Your task to perform on an android device: open app "Facebook" (install if not already installed) and enter user name: "resultants@gmail.com" and password: "earned" Image 0: 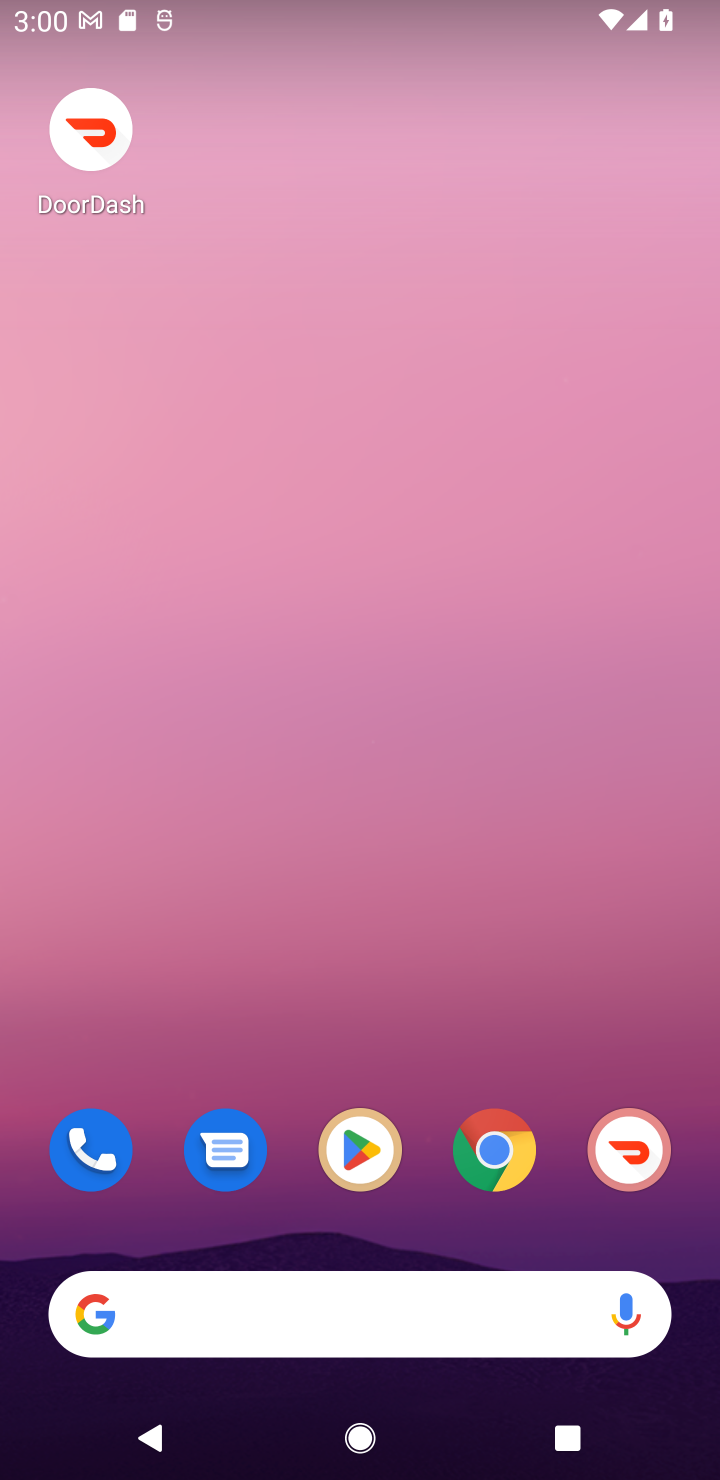
Step 0: drag from (445, 1224) to (410, 334)
Your task to perform on an android device: open app "Facebook" (install if not already installed) and enter user name: "resultants@gmail.com" and password: "earned" Image 1: 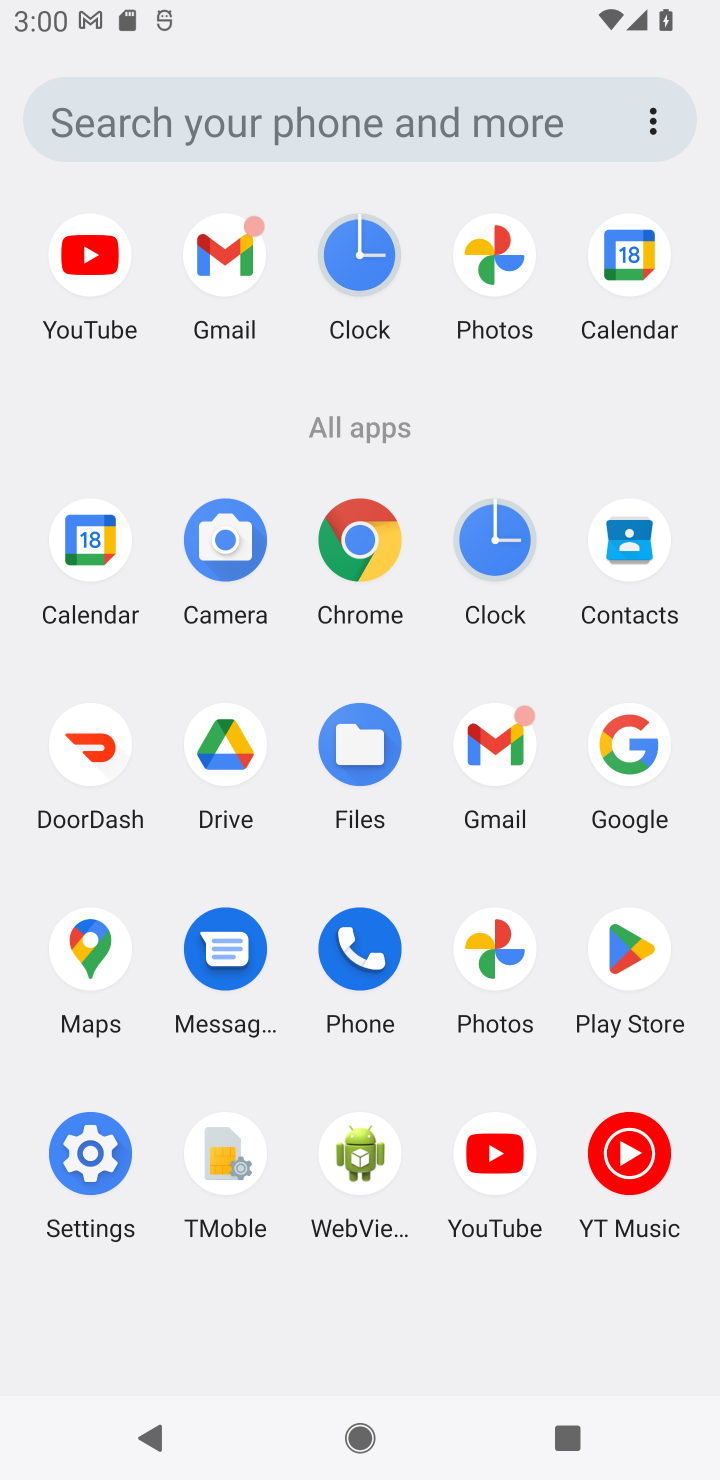
Step 1: click (628, 946)
Your task to perform on an android device: open app "Facebook" (install if not already installed) and enter user name: "resultants@gmail.com" and password: "earned" Image 2: 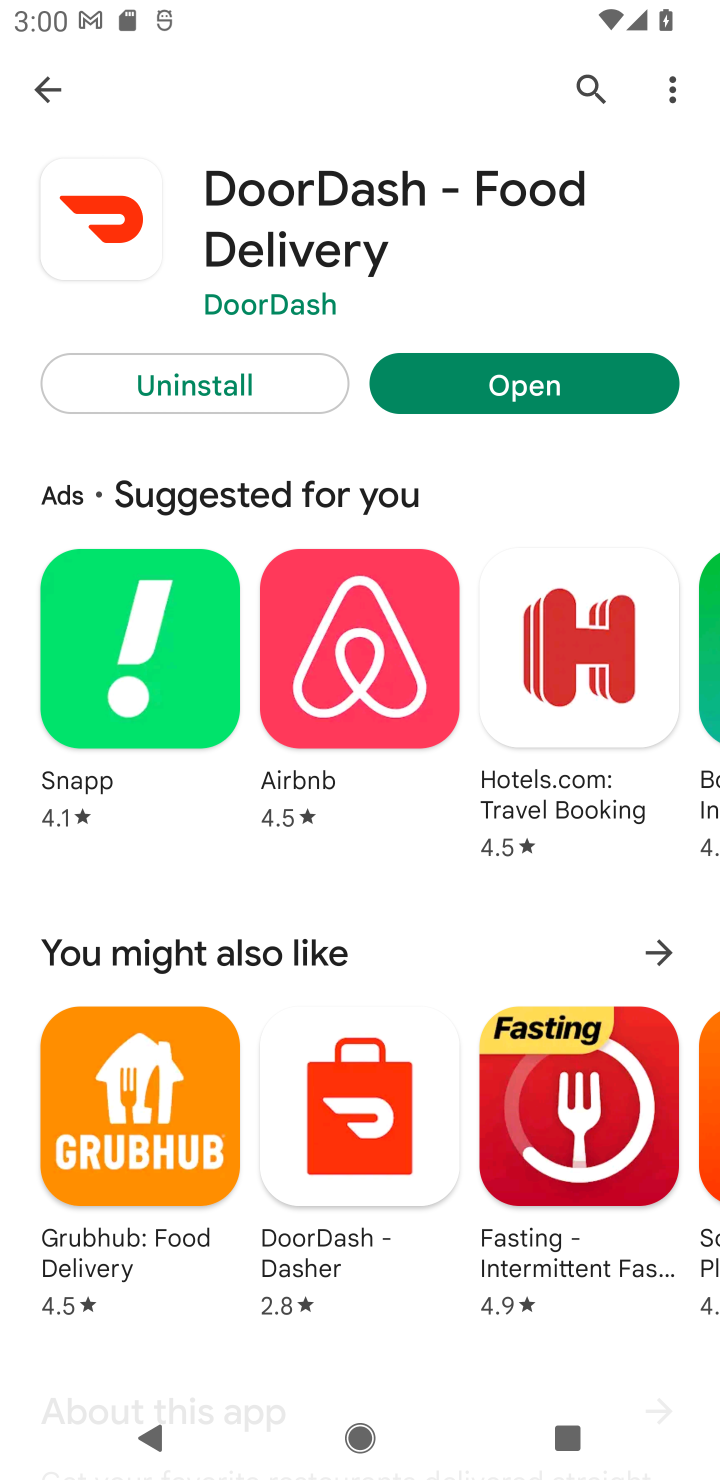
Step 2: click (584, 84)
Your task to perform on an android device: open app "Facebook" (install if not already installed) and enter user name: "resultants@gmail.com" and password: "earned" Image 3: 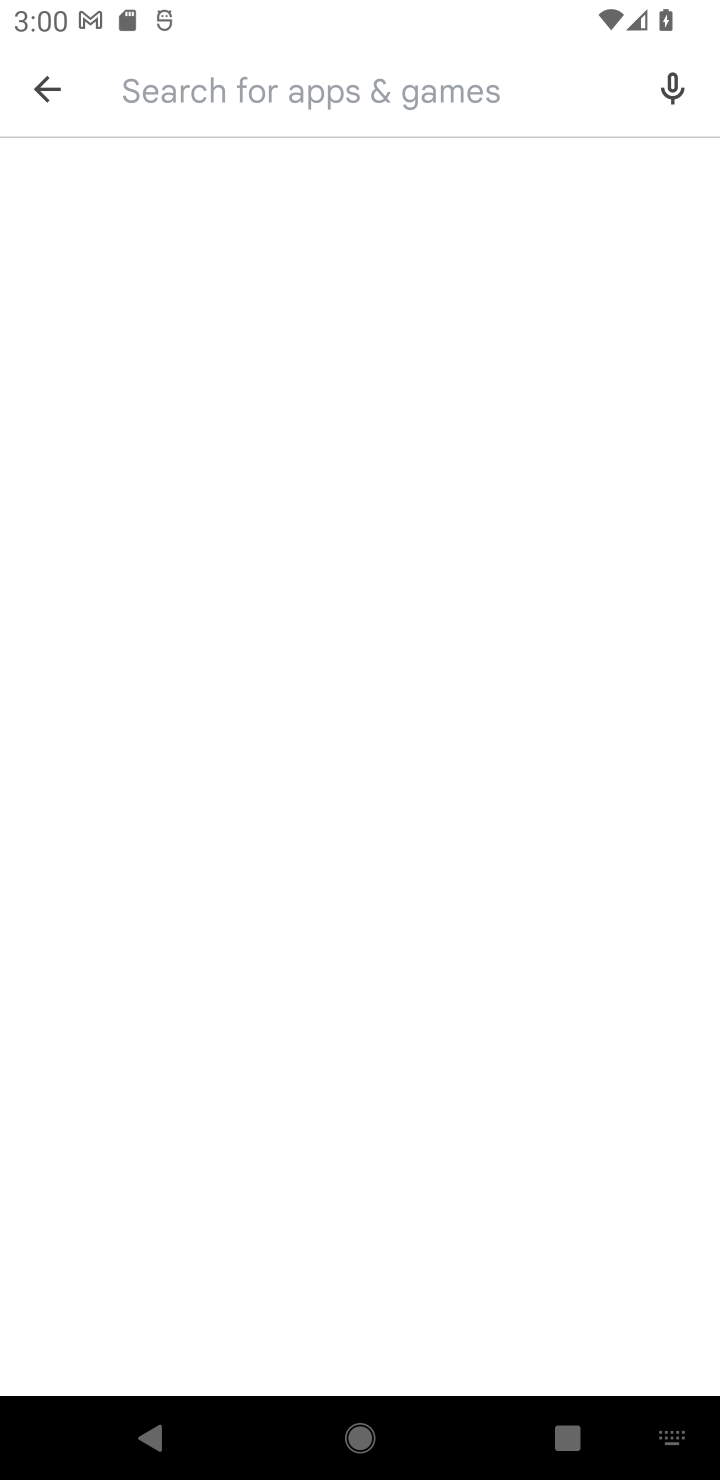
Step 3: type "Facebook"
Your task to perform on an android device: open app "Facebook" (install if not already installed) and enter user name: "resultants@gmail.com" and password: "earned" Image 4: 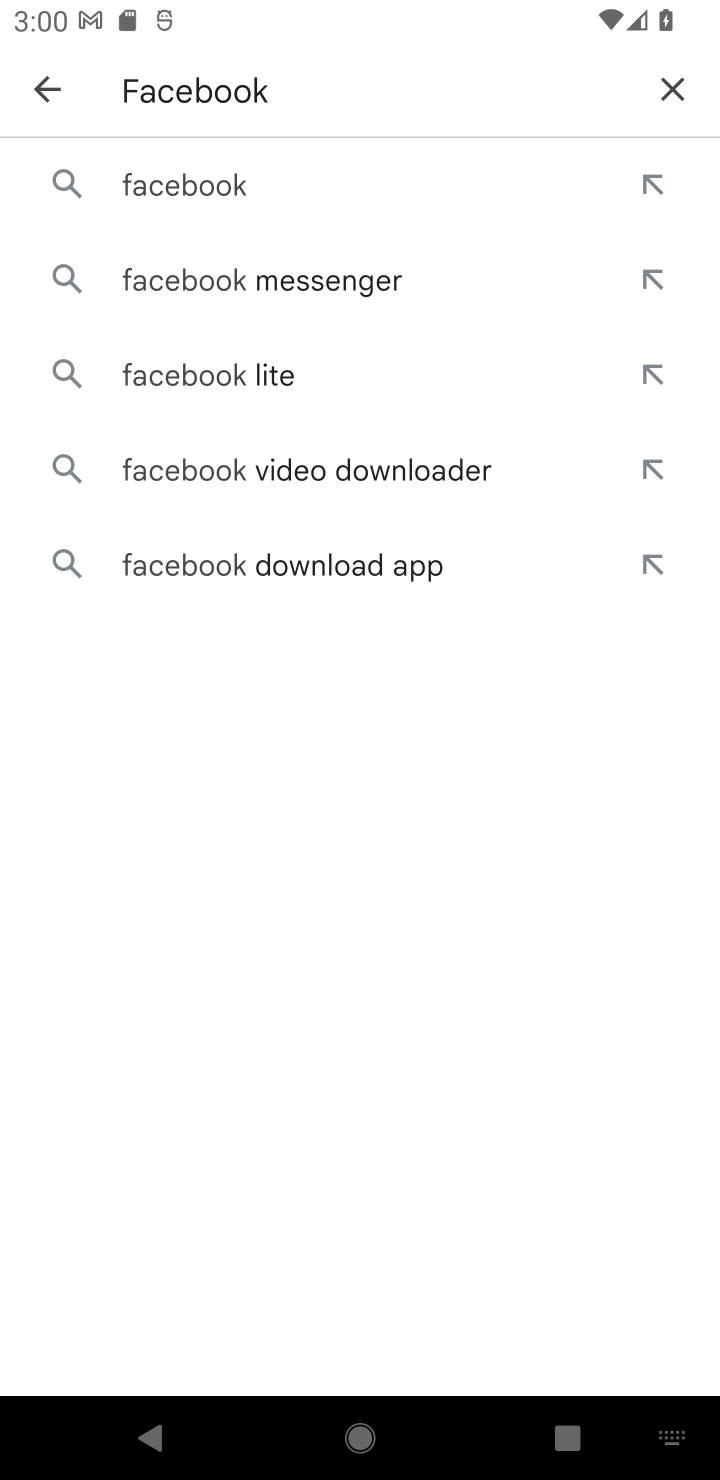
Step 4: click (221, 176)
Your task to perform on an android device: open app "Facebook" (install if not already installed) and enter user name: "resultants@gmail.com" and password: "earned" Image 5: 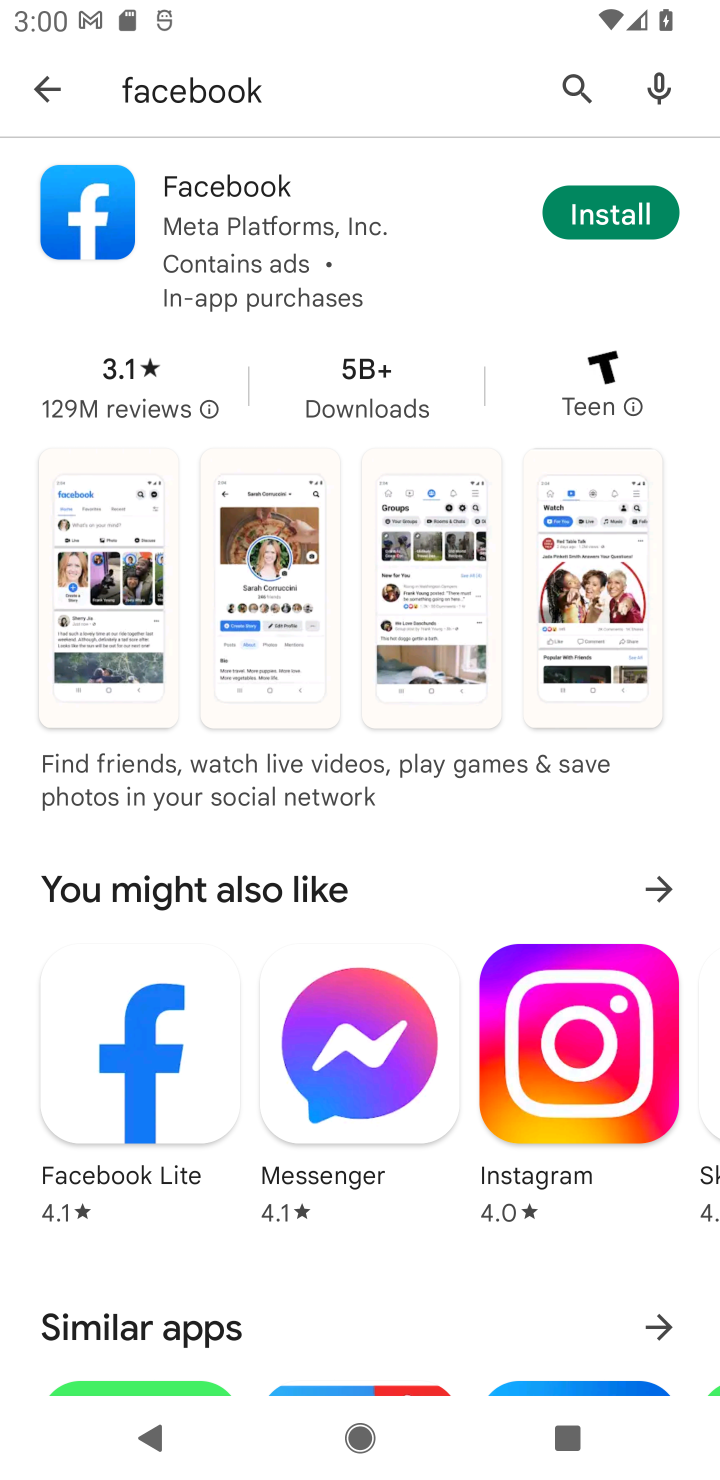
Step 5: click (607, 212)
Your task to perform on an android device: open app "Facebook" (install if not already installed) and enter user name: "resultants@gmail.com" and password: "earned" Image 6: 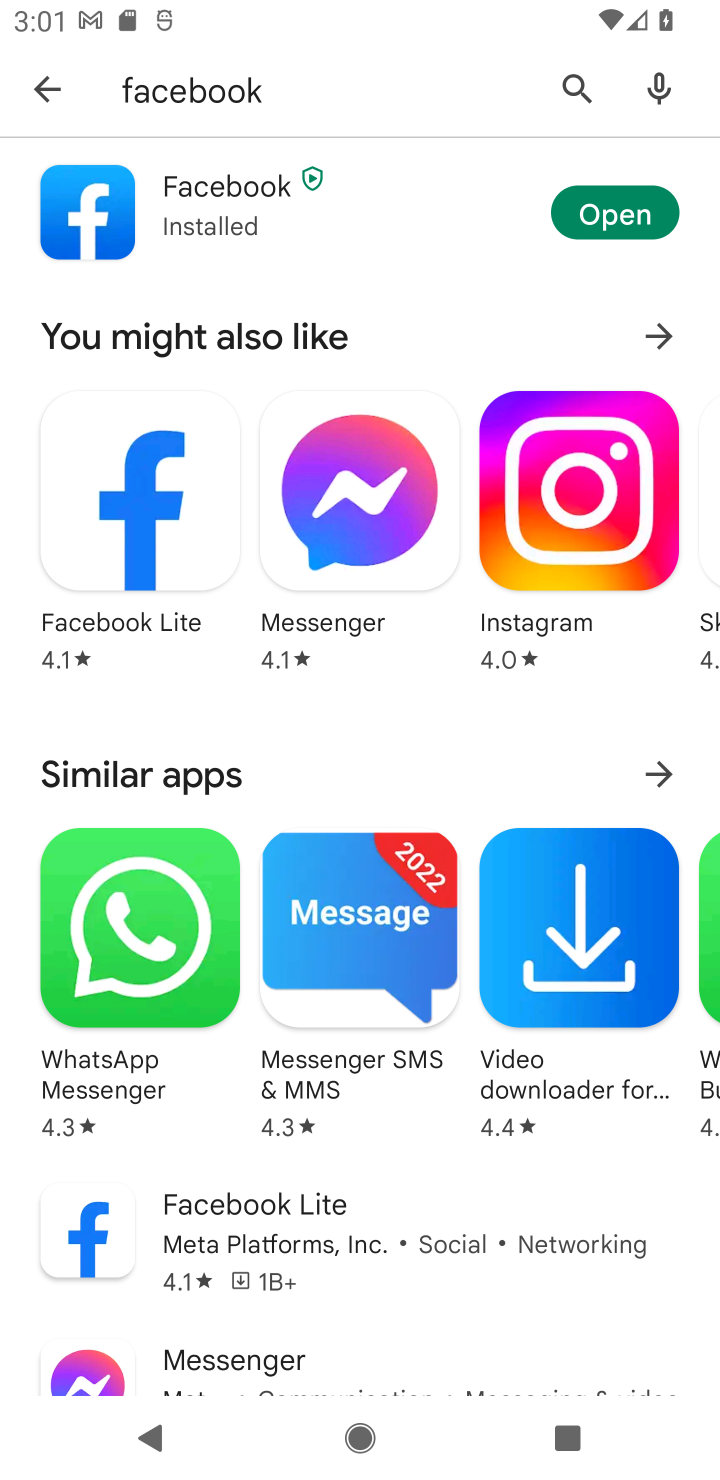
Step 6: click (607, 212)
Your task to perform on an android device: open app "Facebook" (install if not already installed) and enter user name: "resultants@gmail.com" and password: "earned" Image 7: 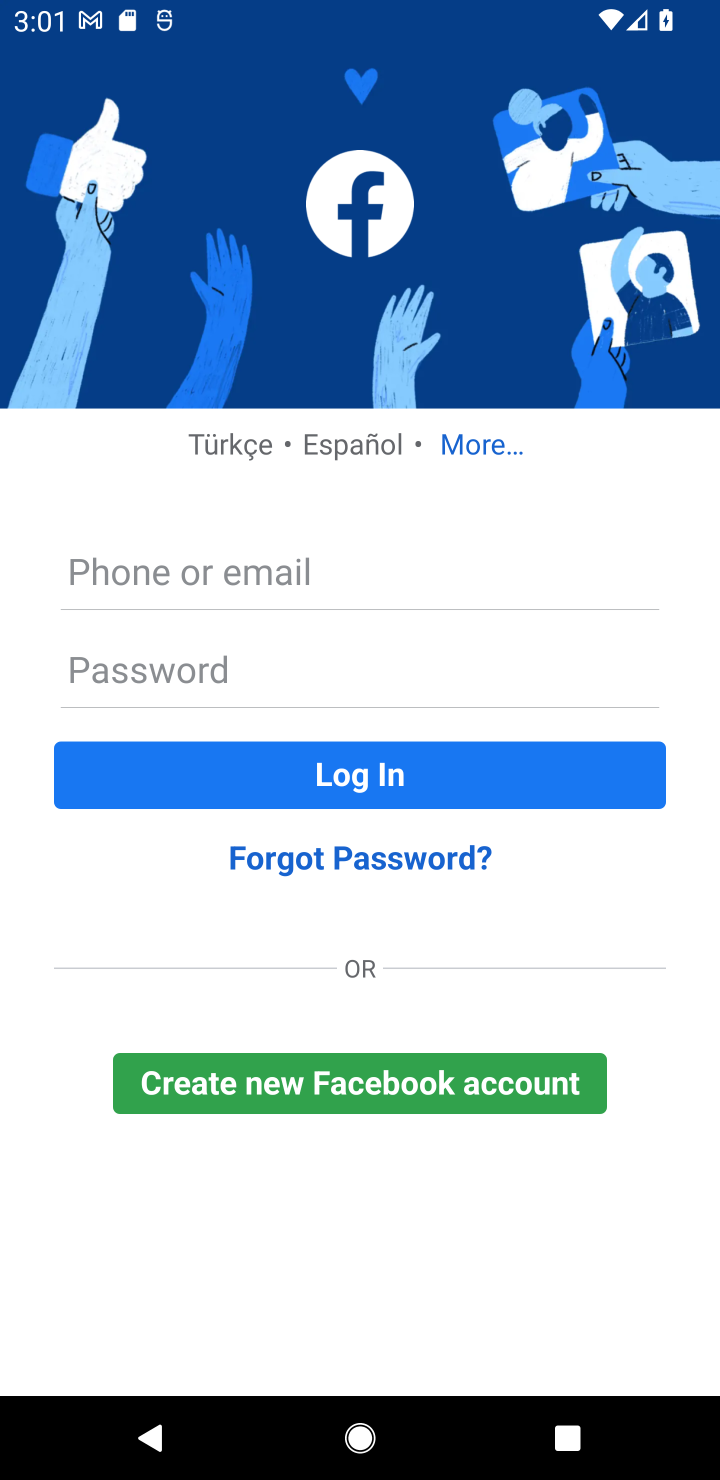
Step 7: click (188, 576)
Your task to perform on an android device: open app "Facebook" (install if not already installed) and enter user name: "resultants@gmail.com" and password: "earned" Image 8: 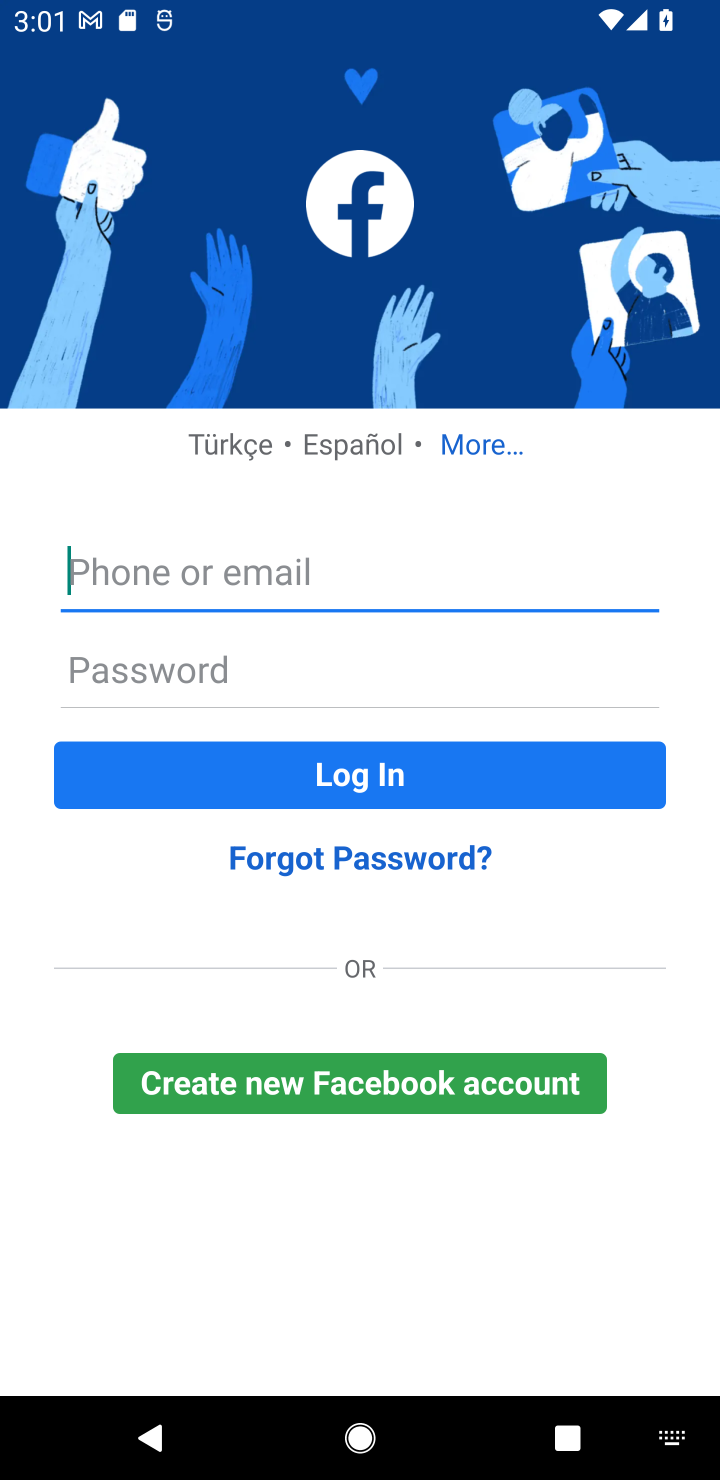
Step 8: type "resultants@gmail.com"
Your task to perform on an android device: open app "Facebook" (install if not already installed) and enter user name: "resultants@gmail.com" and password: "earned" Image 9: 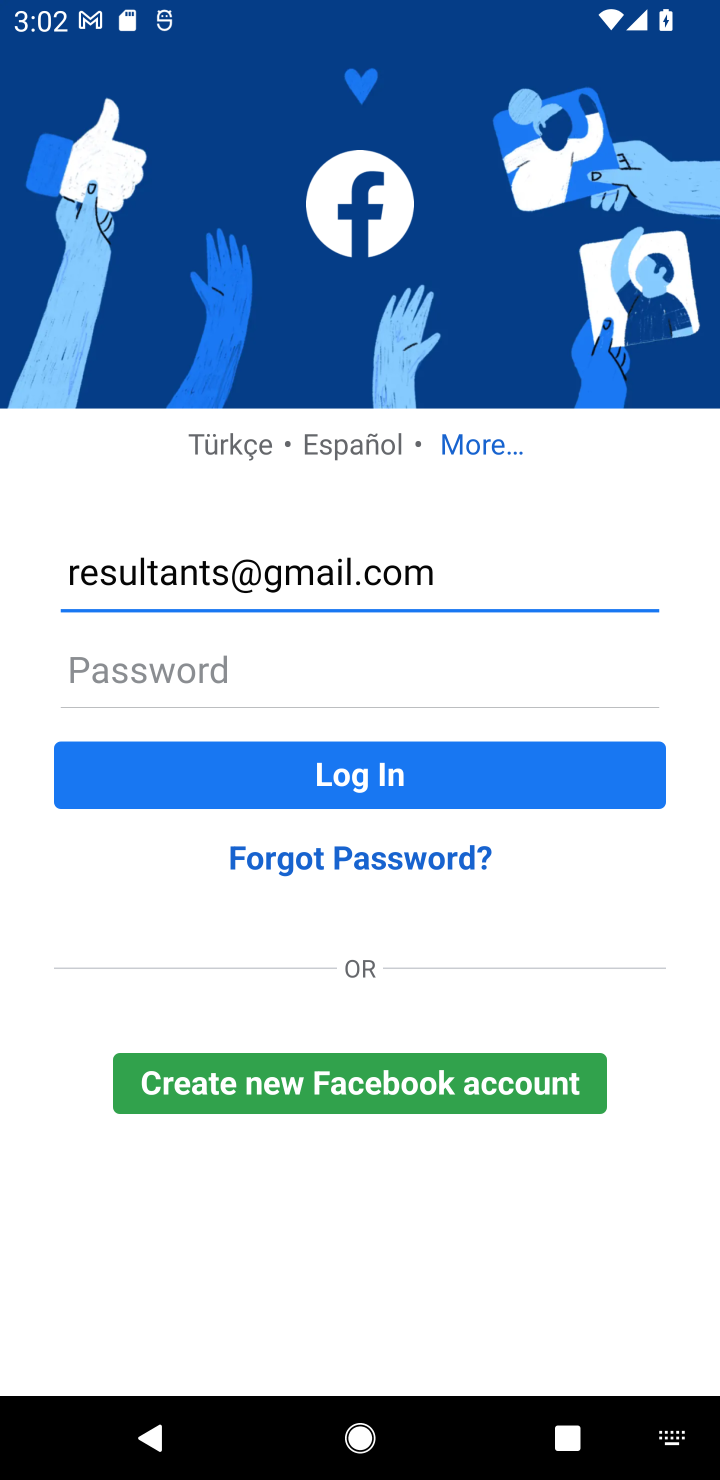
Step 9: click (155, 670)
Your task to perform on an android device: open app "Facebook" (install if not already installed) and enter user name: "resultants@gmail.com" and password: "earned" Image 10: 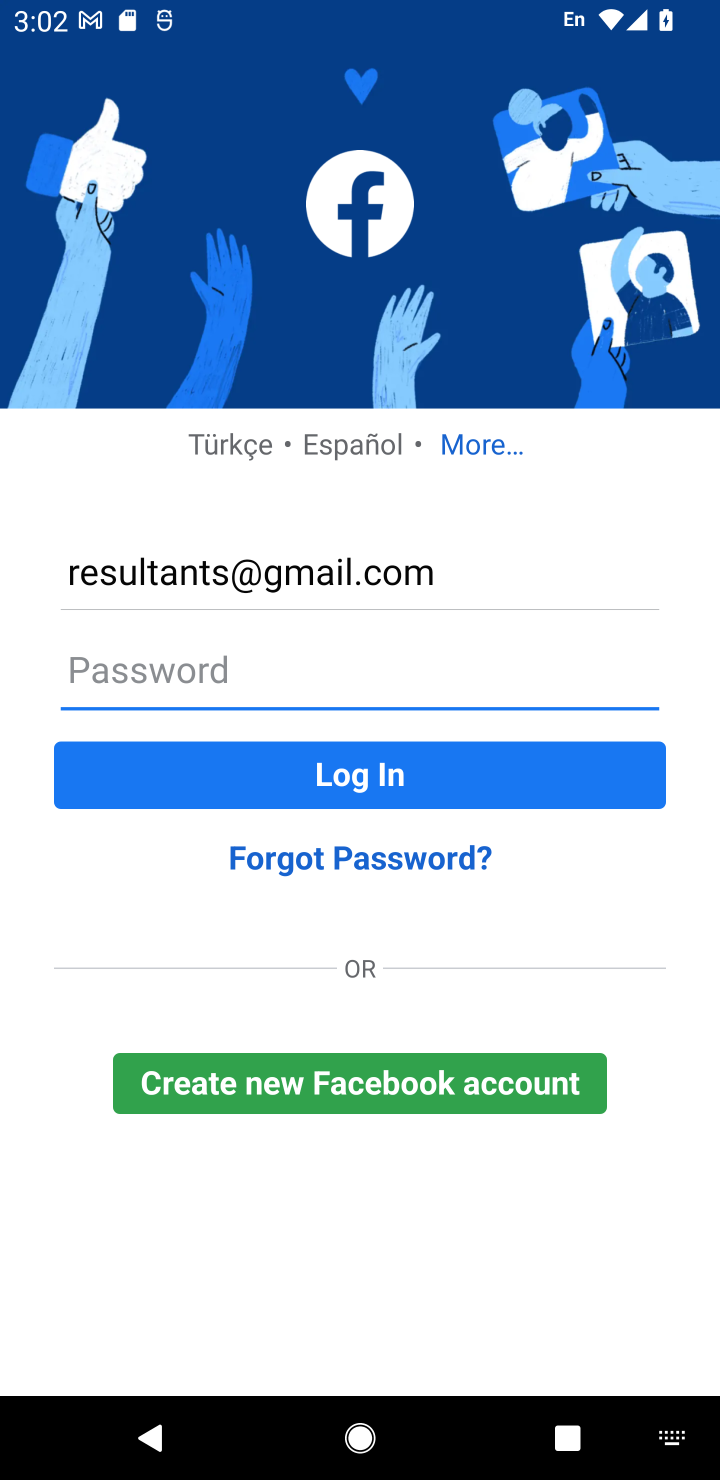
Step 10: type "earned"
Your task to perform on an android device: open app "Facebook" (install if not already installed) and enter user name: "resultants@gmail.com" and password: "earned" Image 11: 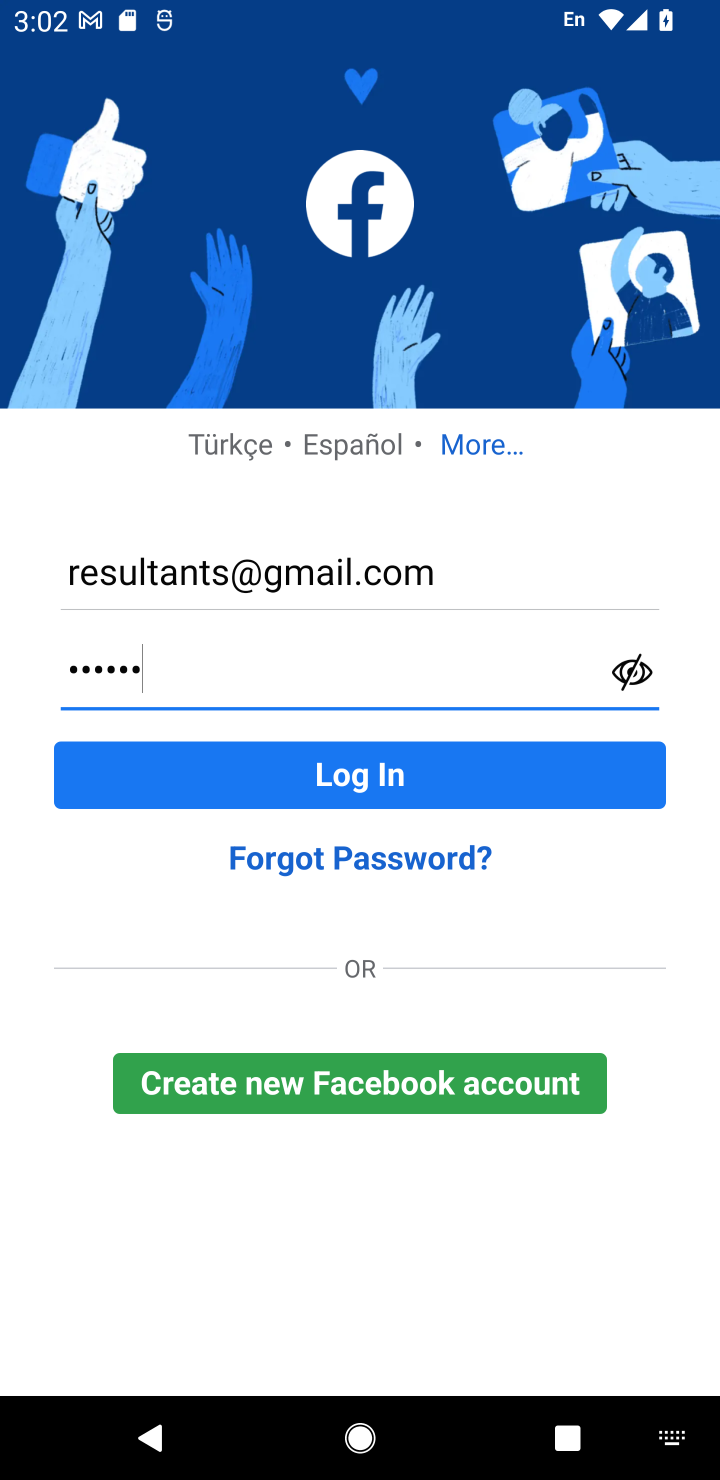
Step 11: task complete